Your task to perform on an android device: all mails in gmail Image 0: 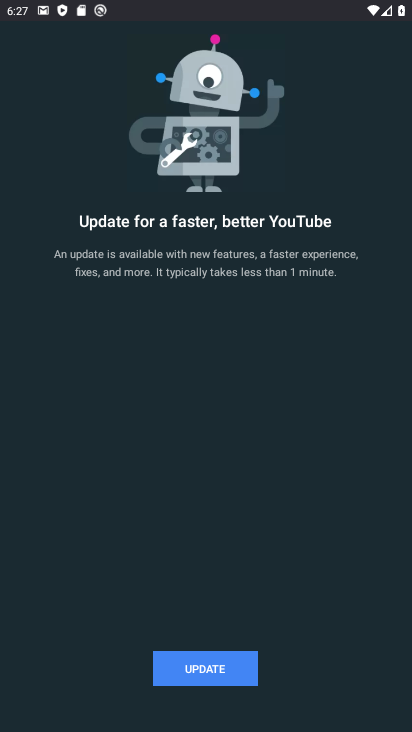
Step 0: press home button
Your task to perform on an android device: all mails in gmail Image 1: 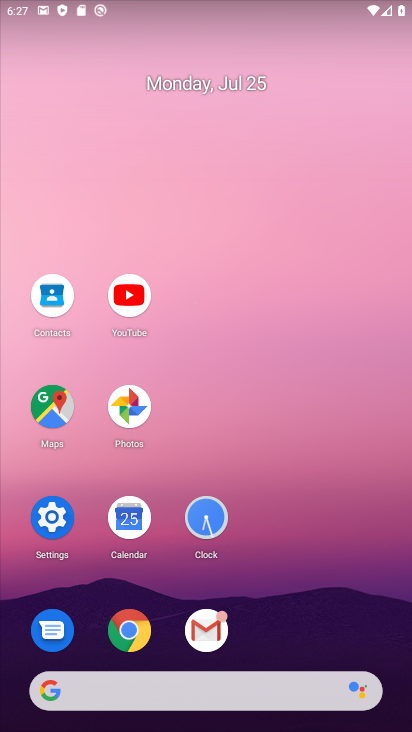
Step 1: click (207, 625)
Your task to perform on an android device: all mails in gmail Image 2: 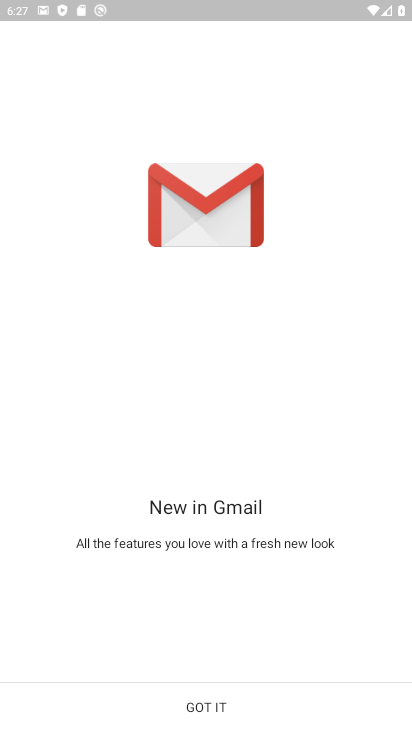
Step 2: click (205, 702)
Your task to perform on an android device: all mails in gmail Image 3: 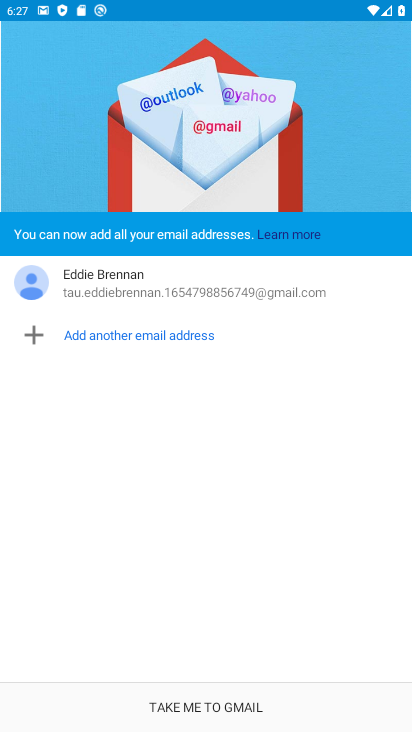
Step 3: click (205, 702)
Your task to perform on an android device: all mails in gmail Image 4: 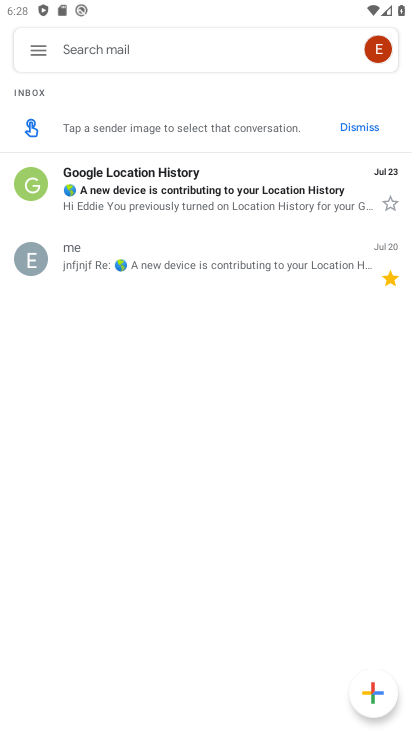
Step 4: click (36, 45)
Your task to perform on an android device: all mails in gmail Image 5: 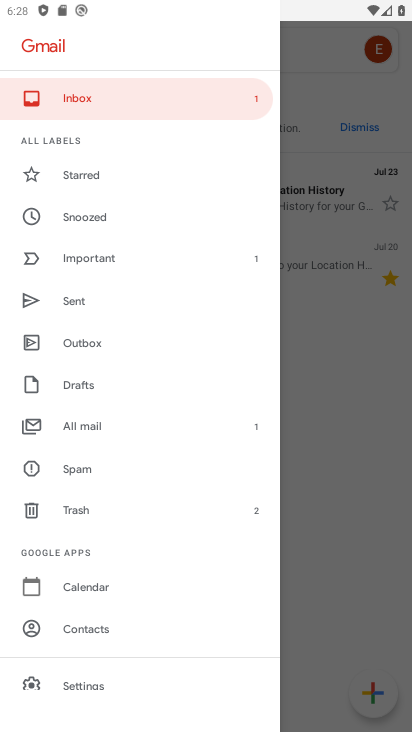
Step 5: click (94, 423)
Your task to perform on an android device: all mails in gmail Image 6: 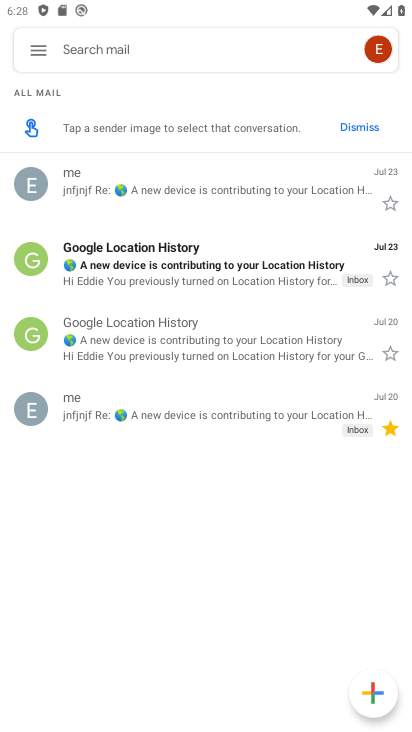
Step 6: task complete